Your task to perform on an android device: Go to privacy settings Image 0: 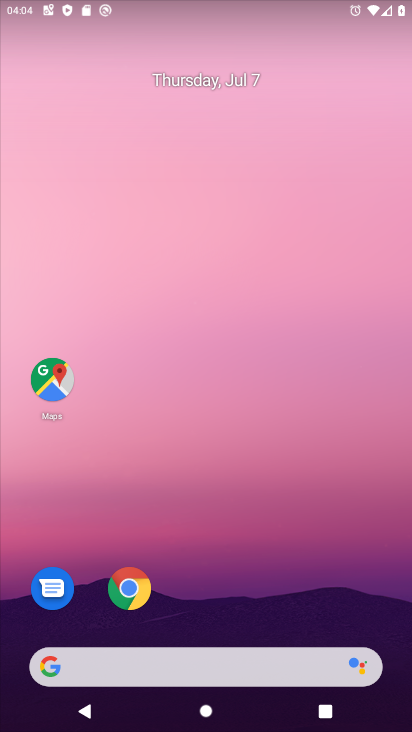
Step 0: click (206, 289)
Your task to perform on an android device: Go to privacy settings Image 1: 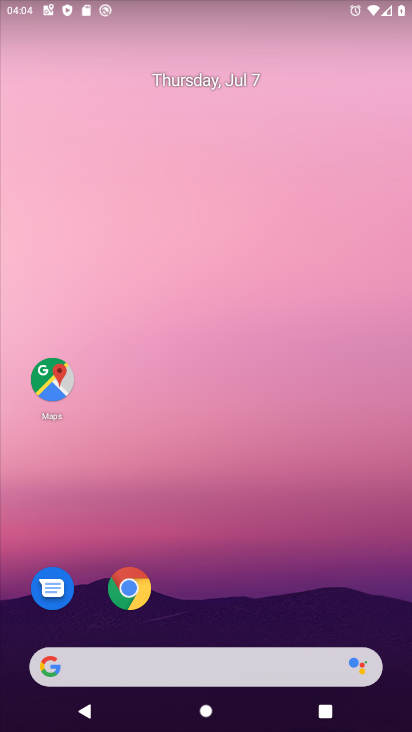
Step 1: drag from (151, 309) to (151, 275)
Your task to perform on an android device: Go to privacy settings Image 2: 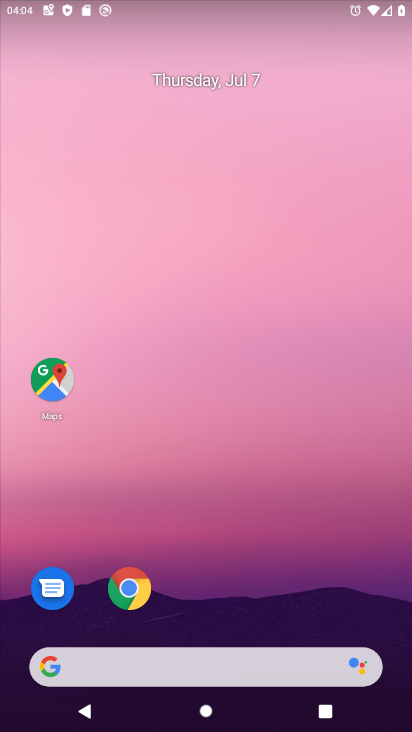
Step 2: drag from (270, 647) to (229, 289)
Your task to perform on an android device: Go to privacy settings Image 3: 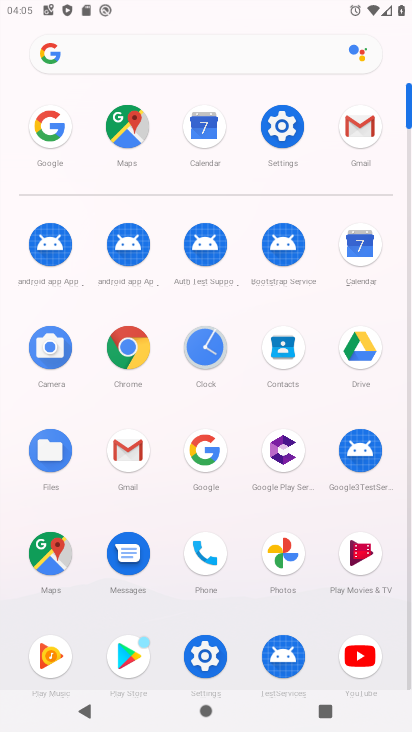
Step 3: click (204, 650)
Your task to perform on an android device: Go to privacy settings Image 4: 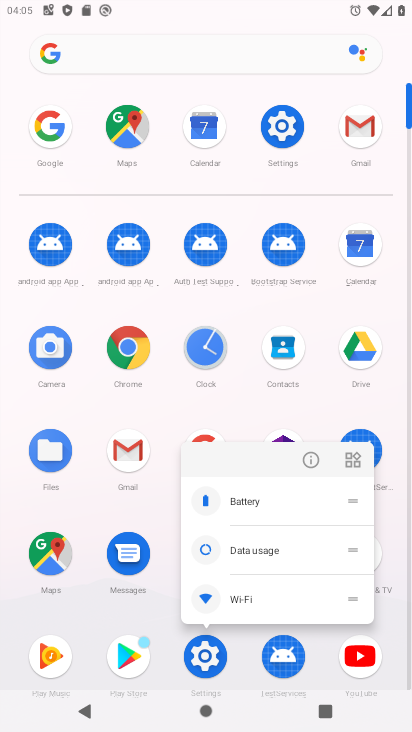
Step 4: click (205, 651)
Your task to perform on an android device: Go to privacy settings Image 5: 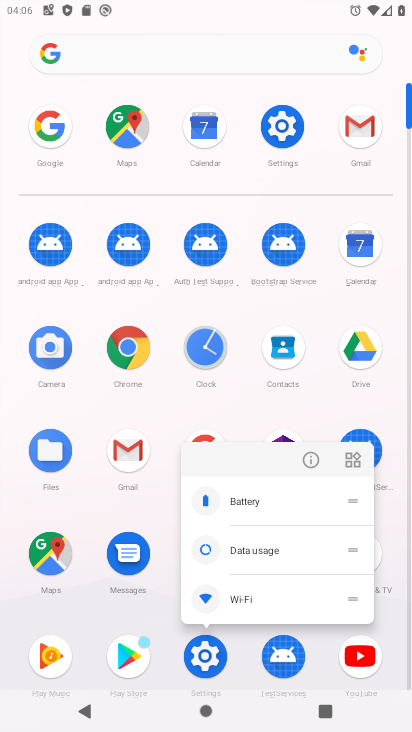
Step 5: click (201, 661)
Your task to perform on an android device: Go to privacy settings Image 6: 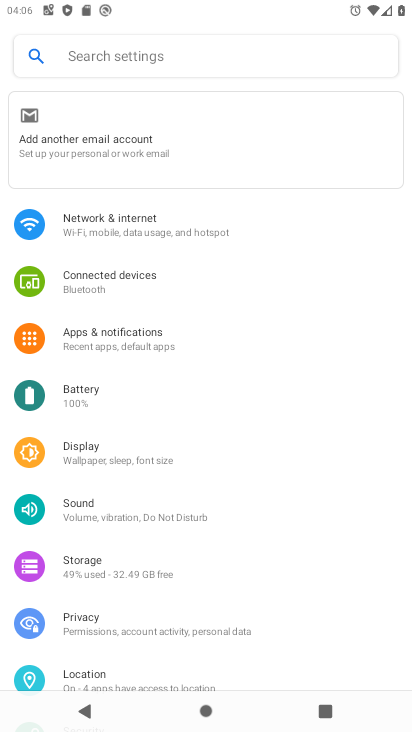
Step 6: click (94, 629)
Your task to perform on an android device: Go to privacy settings Image 7: 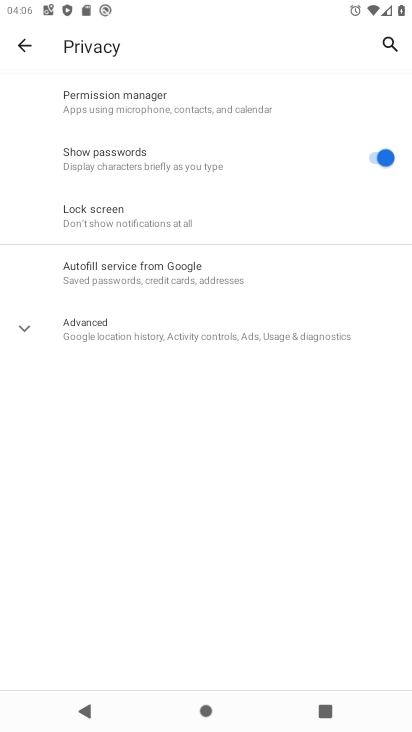
Step 7: click (117, 320)
Your task to perform on an android device: Go to privacy settings Image 8: 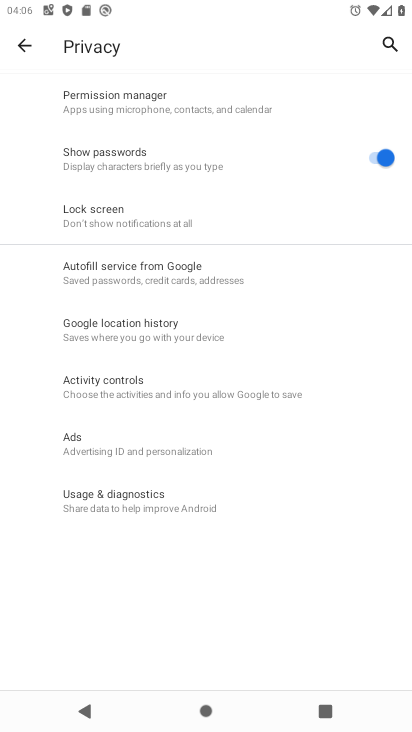
Step 8: task complete